Your task to perform on an android device: Open calendar and show me the third week of next month Image 0: 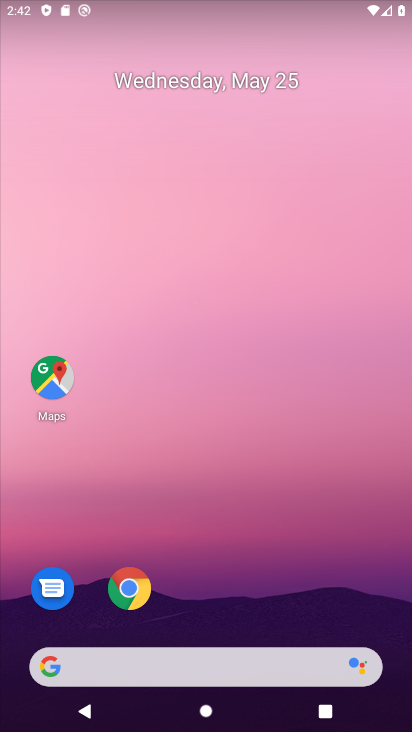
Step 0: press home button
Your task to perform on an android device: Open calendar and show me the third week of next month Image 1: 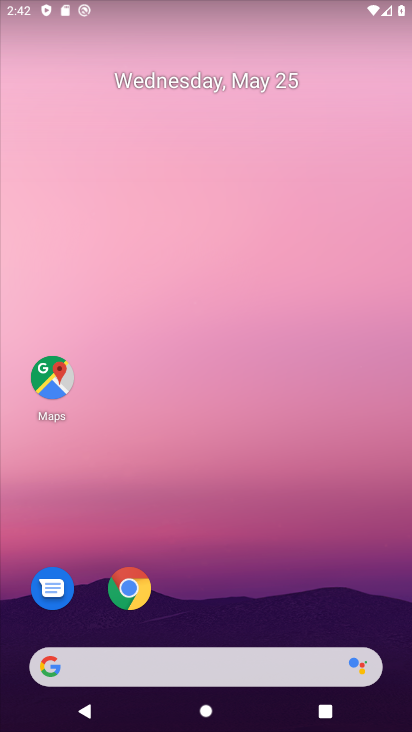
Step 1: drag from (355, 625) to (377, 340)
Your task to perform on an android device: Open calendar and show me the third week of next month Image 2: 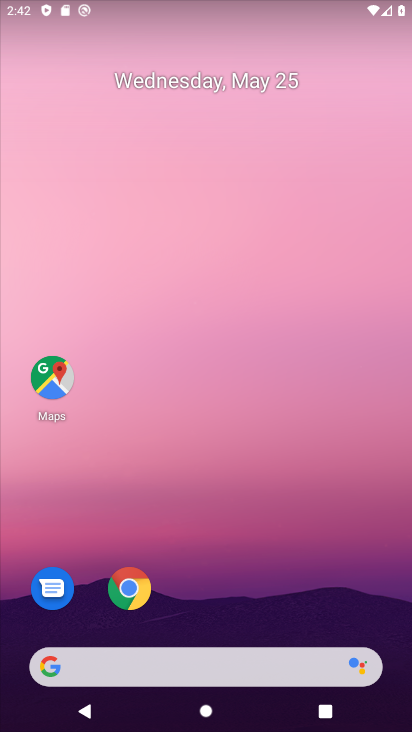
Step 2: drag from (375, 373) to (392, 63)
Your task to perform on an android device: Open calendar and show me the third week of next month Image 3: 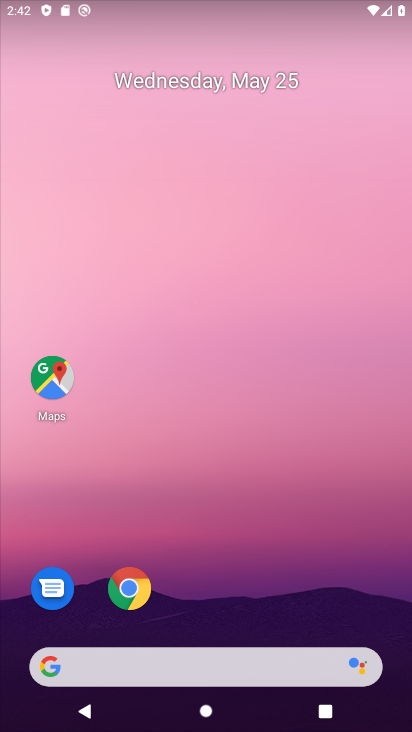
Step 3: drag from (371, 294) to (357, 18)
Your task to perform on an android device: Open calendar and show me the third week of next month Image 4: 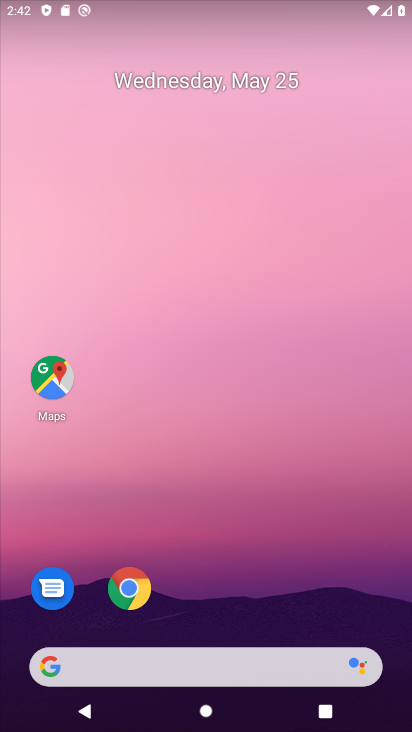
Step 4: drag from (343, 342) to (376, 6)
Your task to perform on an android device: Open calendar and show me the third week of next month Image 5: 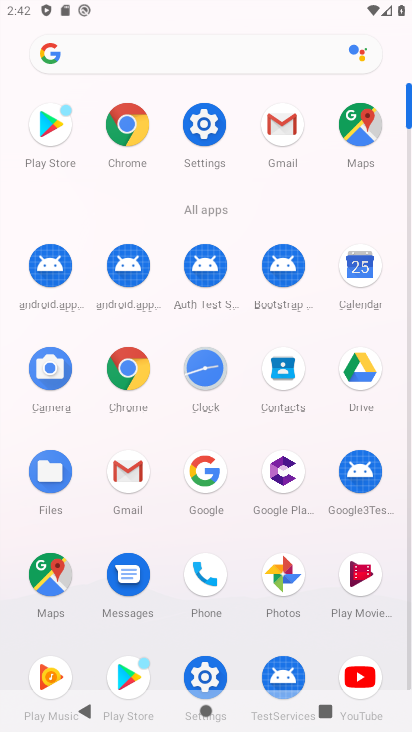
Step 5: click (355, 264)
Your task to perform on an android device: Open calendar and show me the third week of next month Image 6: 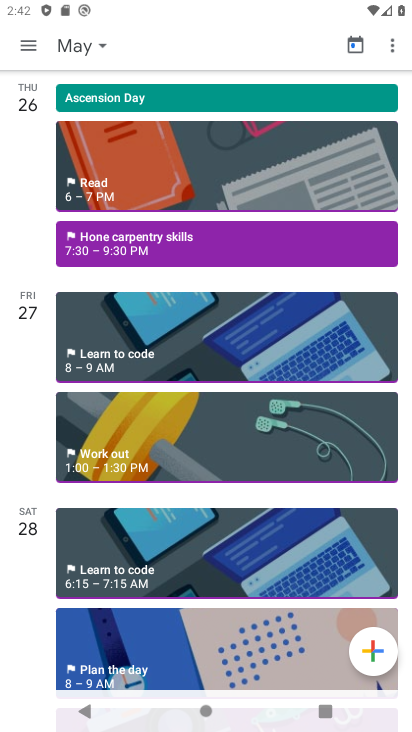
Step 6: click (104, 37)
Your task to perform on an android device: Open calendar and show me the third week of next month Image 7: 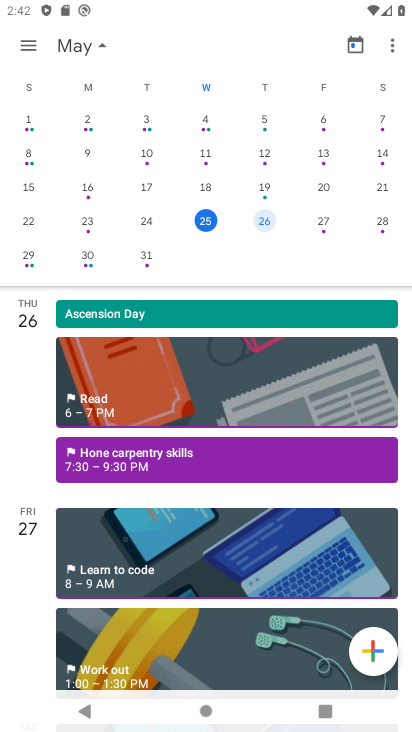
Step 7: drag from (392, 165) to (70, 171)
Your task to perform on an android device: Open calendar and show me the third week of next month Image 8: 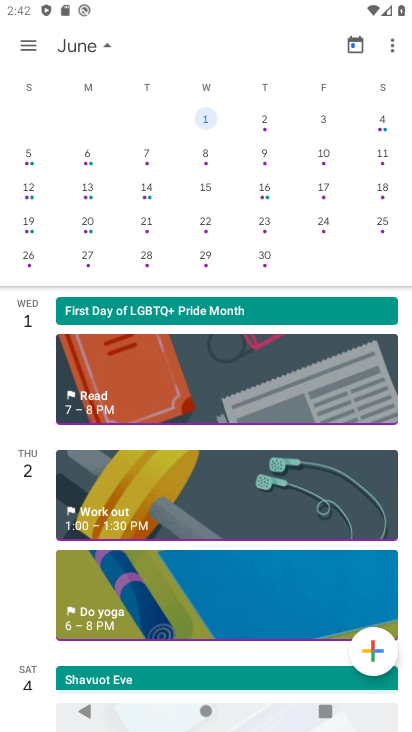
Step 8: click (201, 184)
Your task to perform on an android device: Open calendar and show me the third week of next month Image 9: 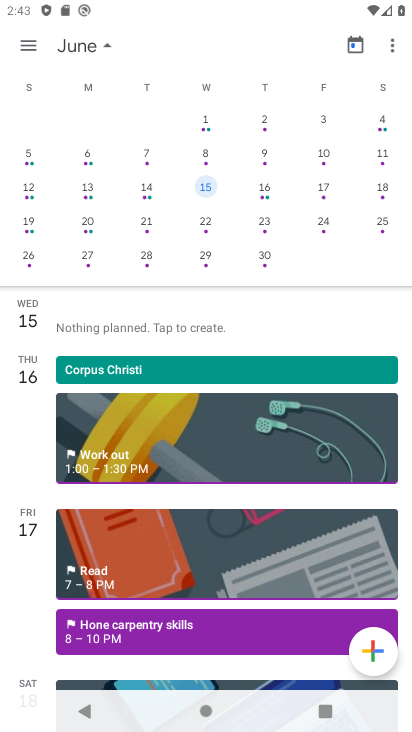
Step 9: task complete